Your task to perform on an android device: change your default location settings in chrome Image 0: 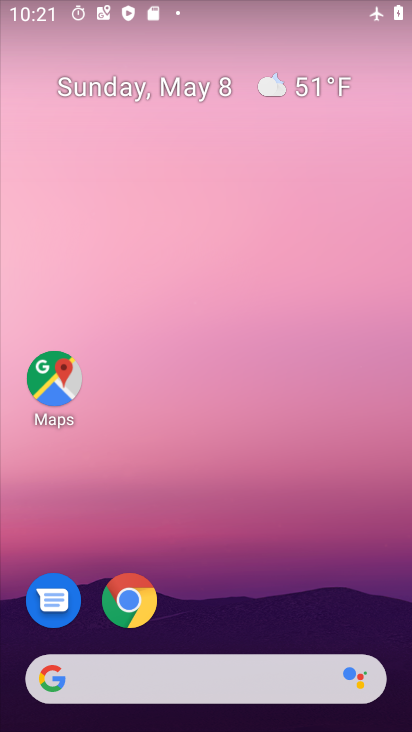
Step 0: drag from (257, 571) to (197, 19)
Your task to perform on an android device: change your default location settings in chrome Image 1: 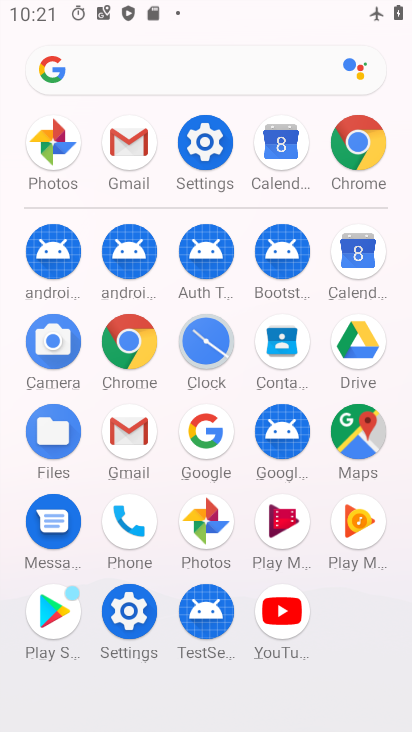
Step 1: drag from (3, 575) to (9, 229)
Your task to perform on an android device: change your default location settings in chrome Image 2: 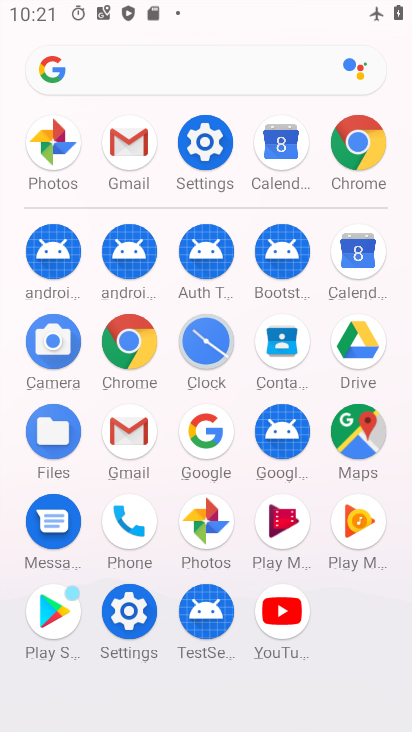
Step 2: click (126, 339)
Your task to perform on an android device: change your default location settings in chrome Image 3: 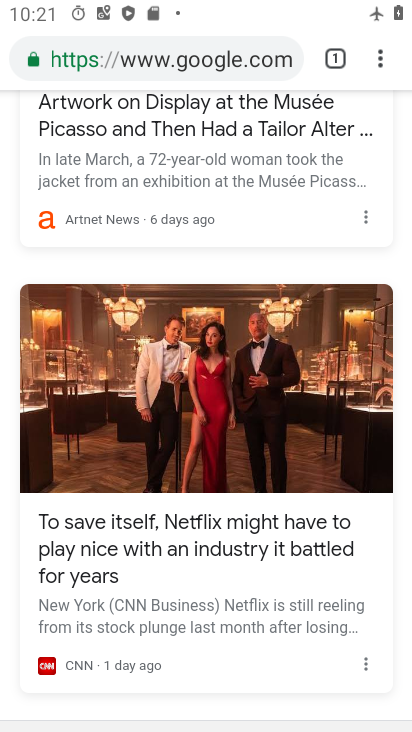
Step 3: drag from (380, 57) to (201, 626)
Your task to perform on an android device: change your default location settings in chrome Image 4: 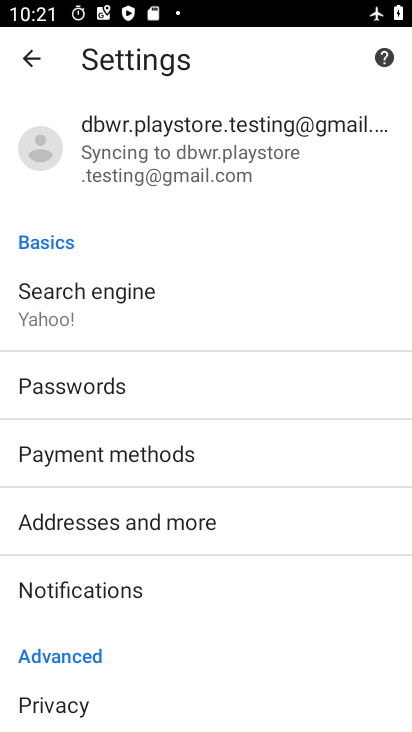
Step 4: drag from (207, 516) to (266, 223)
Your task to perform on an android device: change your default location settings in chrome Image 5: 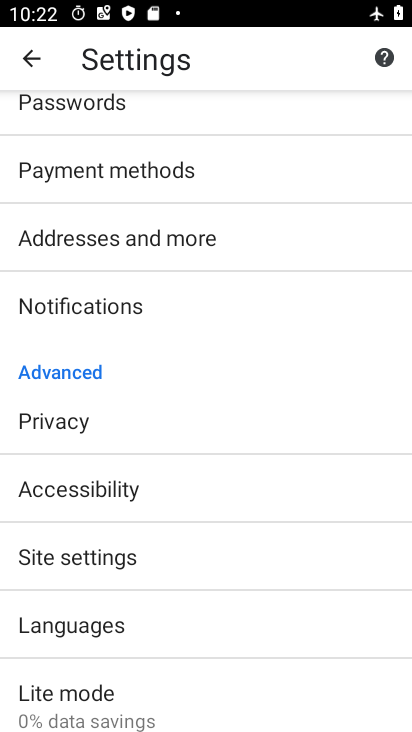
Step 5: click (132, 555)
Your task to perform on an android device: change your default location settings in chrome Image 6: 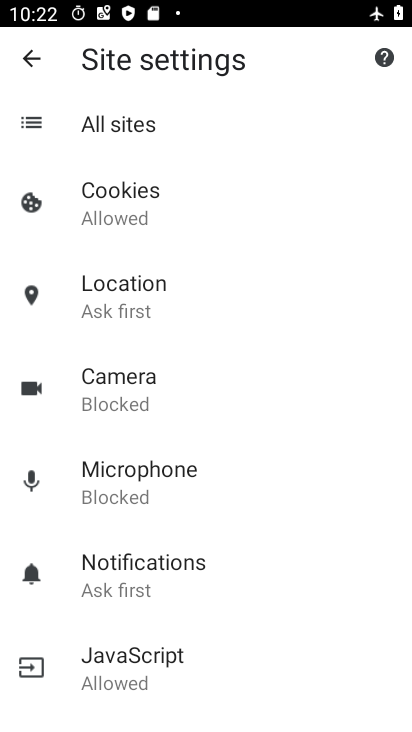
Step 6: click (170, 284)
Your task to perform on an android device: change your default location settings in chrome Image 7: 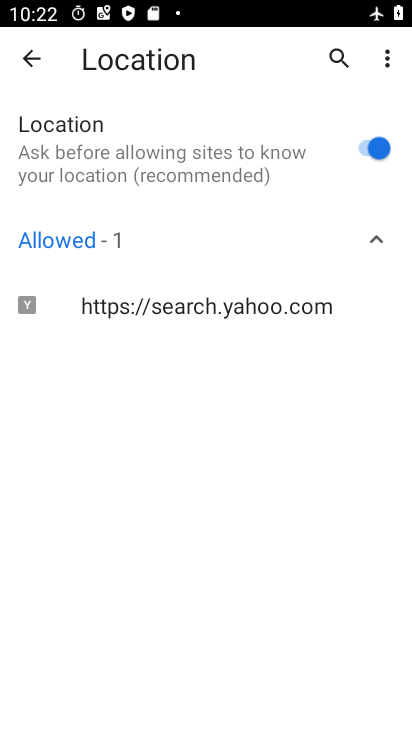
Step 7: click (380, 138)
Your task to perform on an android device: change your default location settings in chrome Image 8: 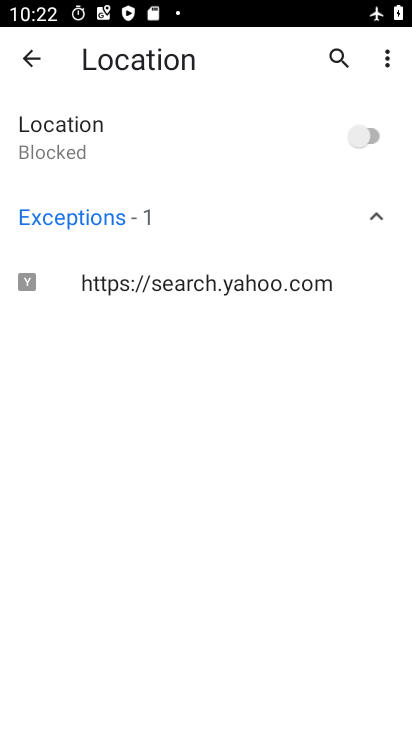
Step 8: task complete